Your task to perform on an android device: Open accessibility settings Image 0: 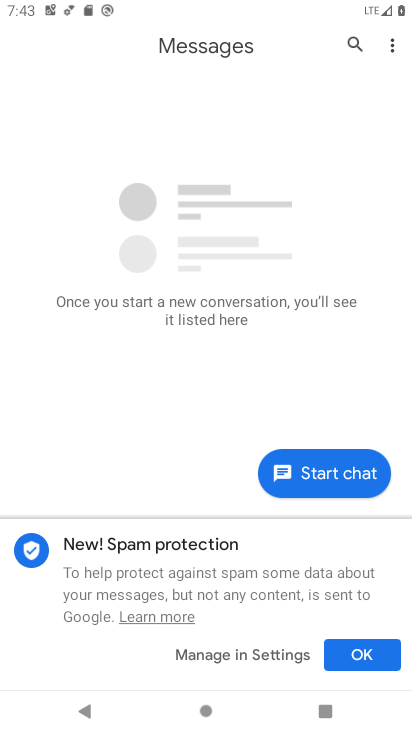
Step 0: press home button
Your task to perform on an android device: Open accessibility settings Image 1: 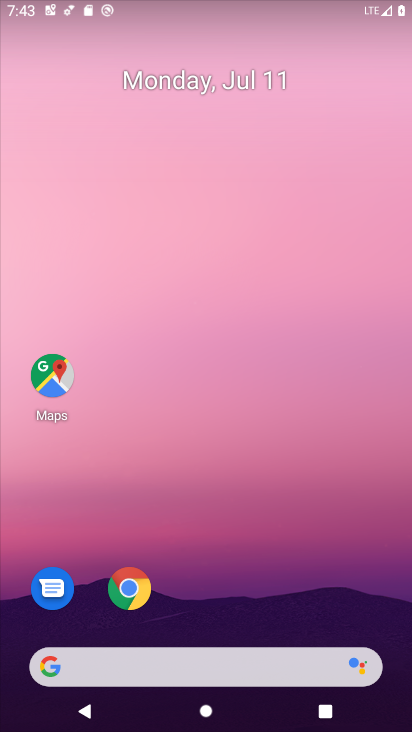
Step 1: drag from (401, 638) to (133, 151)
Your task to perform on an android device: Open accessibility settings Image 2: 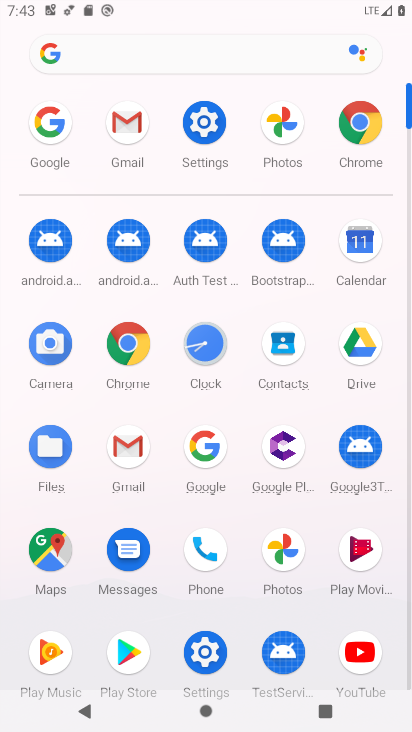
Step 2: click (195, 124)
Your task to perform on an android device: Open accessibility settings Image 3: 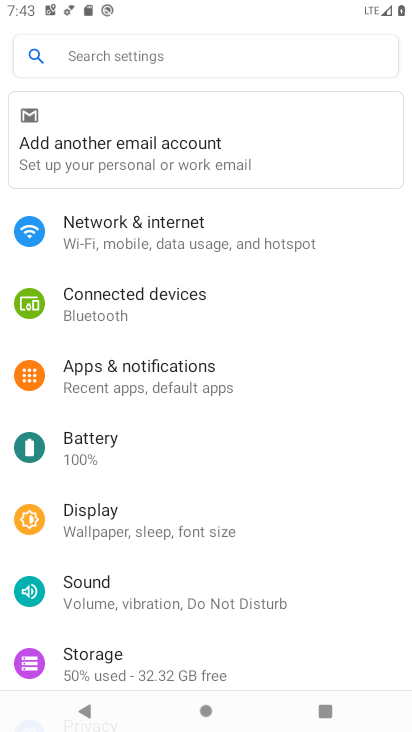
Step 3: drag from (153, 659) to (189, 261)
Your task to perform on an android device: Open accessibility settings Image 4: 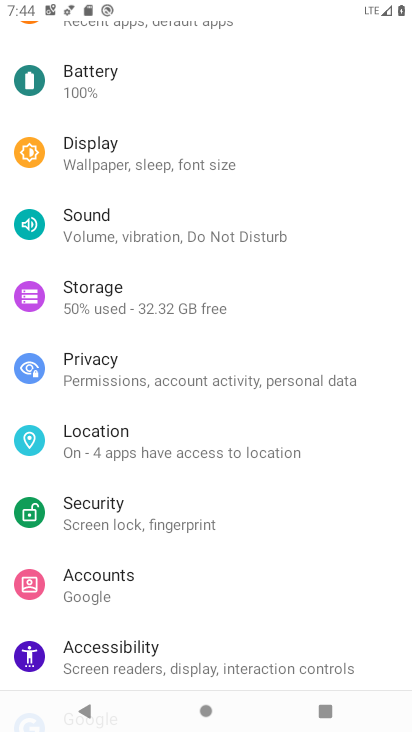
Step 4: click (160, 664)
Your task to perform on an android device: Open accessibility settings Image 5: 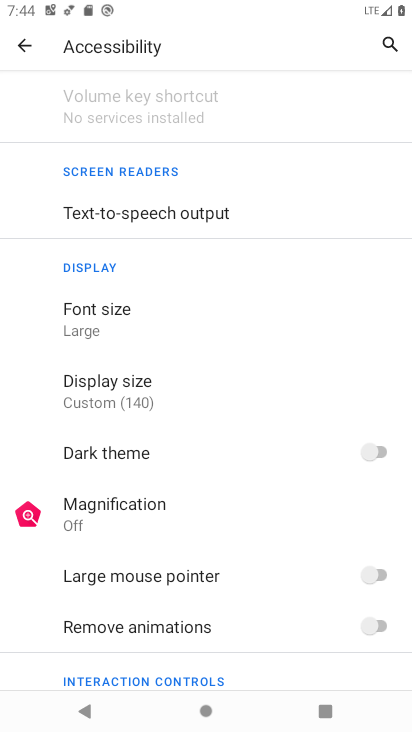
Step 5: task complete